Your task to perform on an android device: Search for sushi restaurants on Maps Image 0: 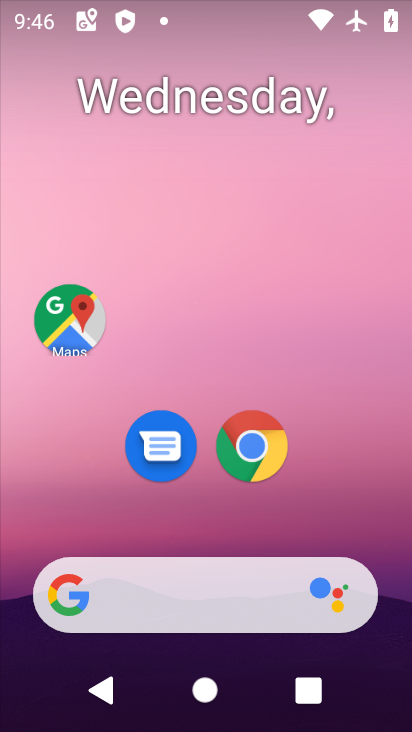
Step 0: click (76, 325)
Your task to perform on an android device: Search for sushi restaurants on Maps Image 1: 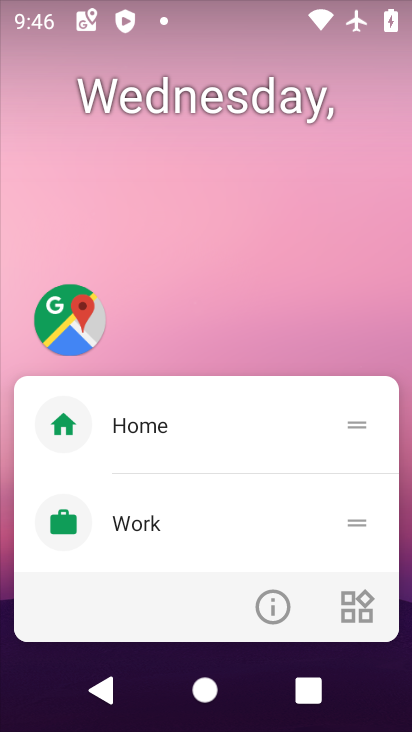
Step 1: click (68, 328)
Your task to perform on an android device: Search for sushi restaurants on Maps Image 2: 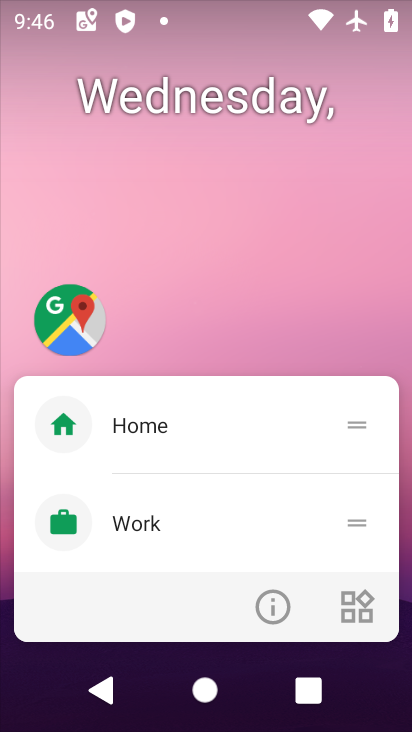
Step 2: click (64, 341)
Your task to perform on an android device: Search for sushi restaurants on Maps Image 3: 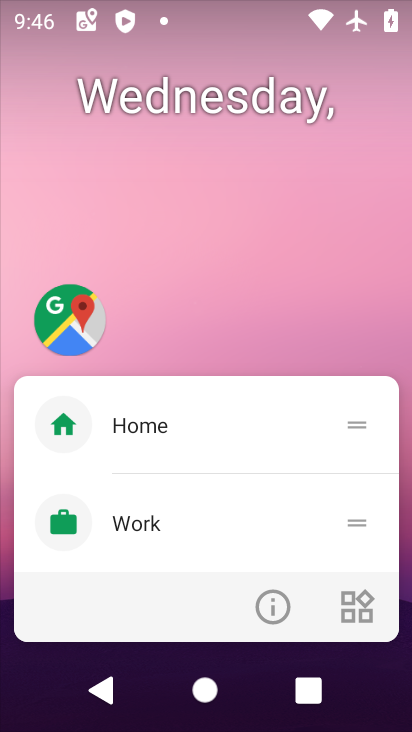
Step 3: click (72, 337)
Your task to perform on an android device: Search for sushi restaurants on Maps Image 4: 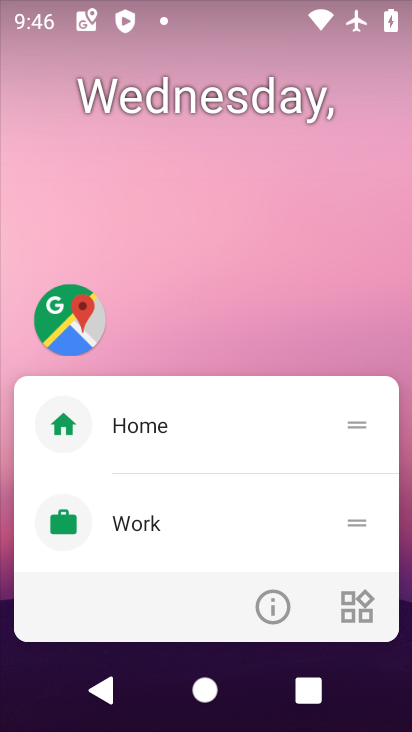
Step 4: click (67, 328)
Your task to perform on an android device: Search for sushi restaurants on Maps Image 5: 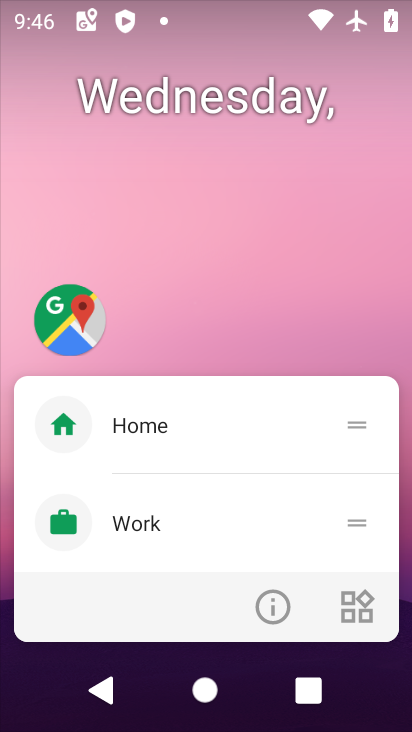
Step 5: click (72, 326)
Your task to perform on an android device: Search for sushi restaurants on Maps Image 6: 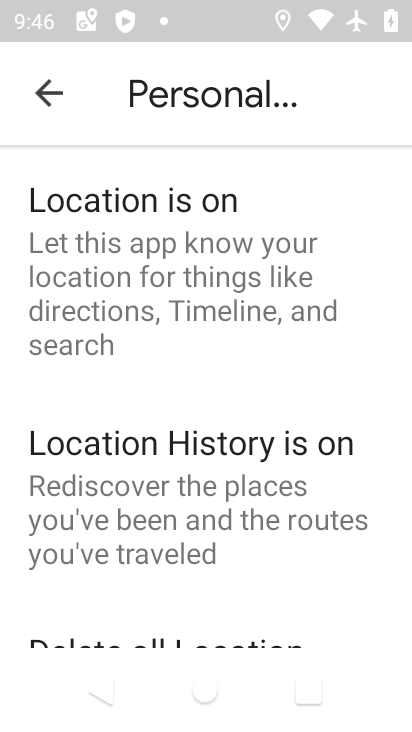
Step 6: click (49, 99)
Your task to perform on an android device: Search for sushi restaurants on Maps Image 7: 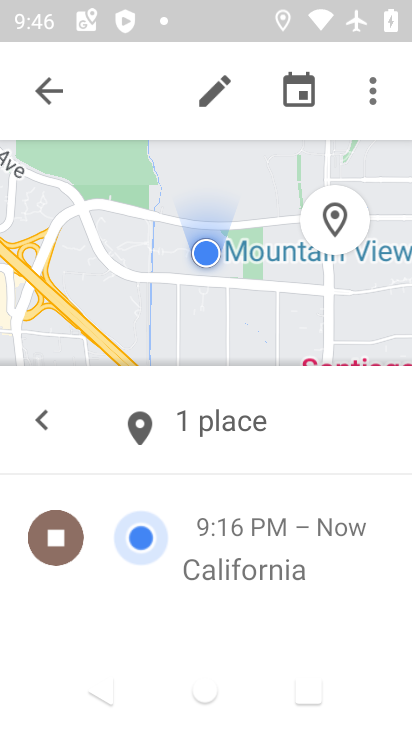
Step 7: click (49, 98)
Your task to perform on an android device: Search for sushi restaurants on Maps Image 8: 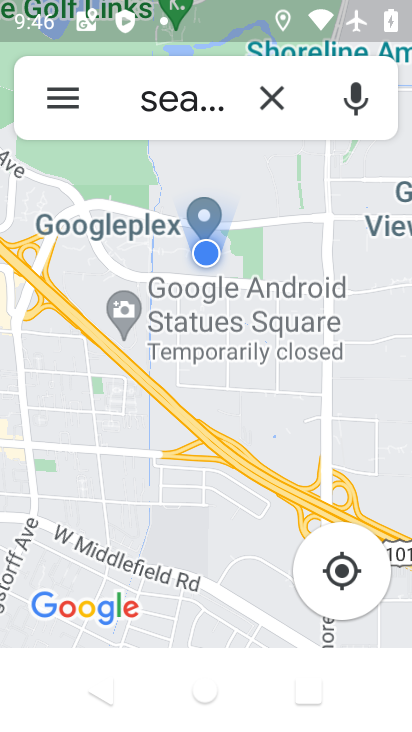
Step 8: click (279, 96)
Your task to perform on an android device: Search for sushi restaurants on Maps Image 9: 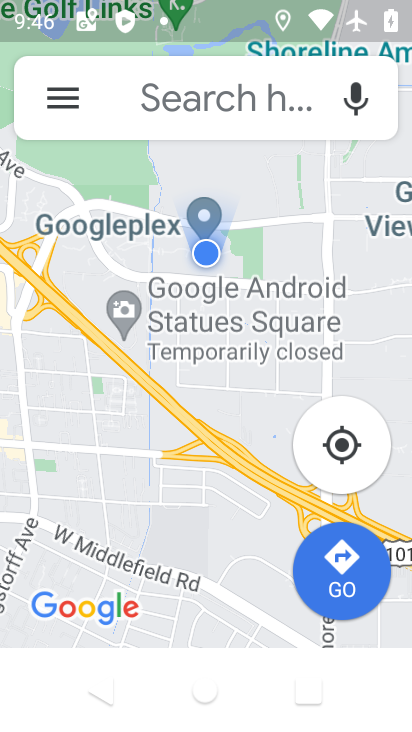
Step 9: click (199, 102)
Your task to perform on an android device: Search for sushi restaurants on Maps Image 10: 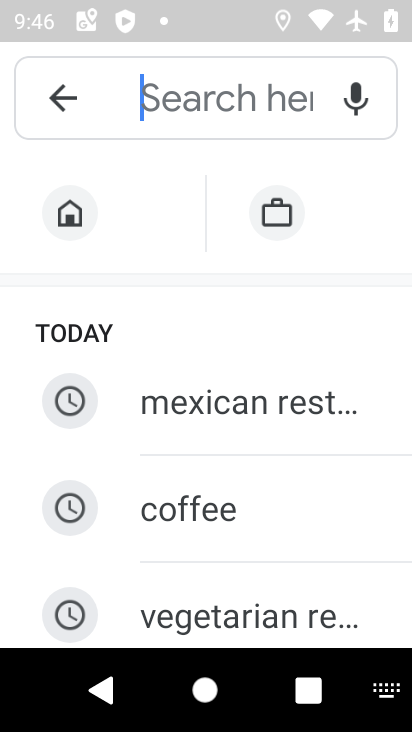
Step 10: drag from (188, 552) to (337, 194)
Your task to perform on an android device: Search for sushi restaurants on Maps Image 11: 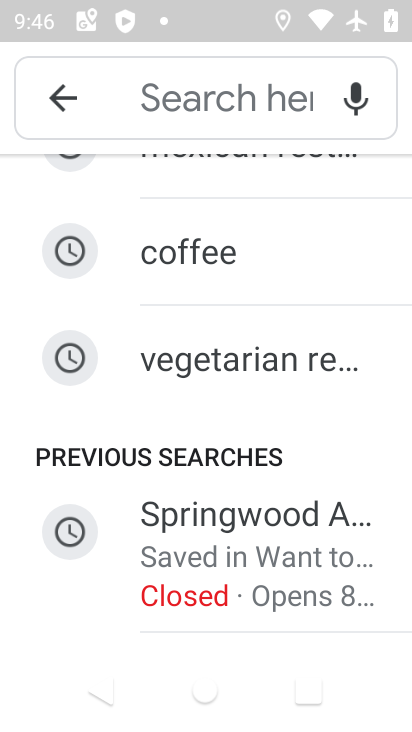
Step 11: drag from (301, 328) to (273, 648)
Your task to perform on an android device: Search for sushi restaurants on Maps Image 12: 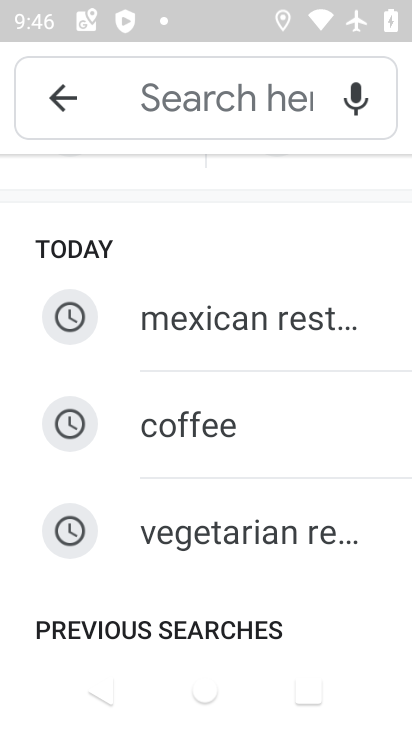
Step 12: click (174, 90)
Your task to perform on an android device: Search for sushi restaurants on Maps Image 13: 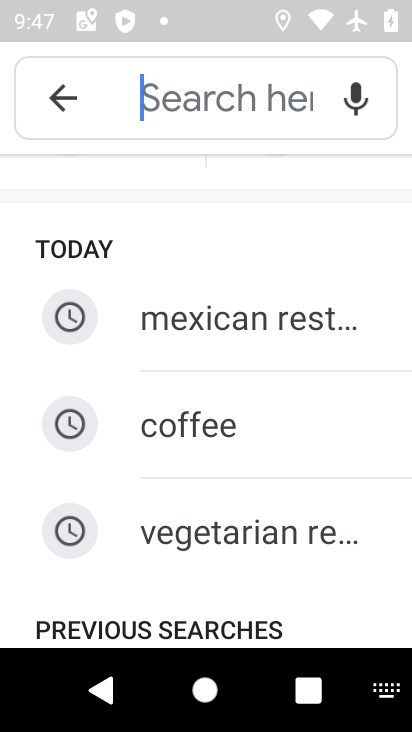
Step 13: type "sushi"
Your task to perform on an android device: Search for sushi restaurants on Maps Image 14: 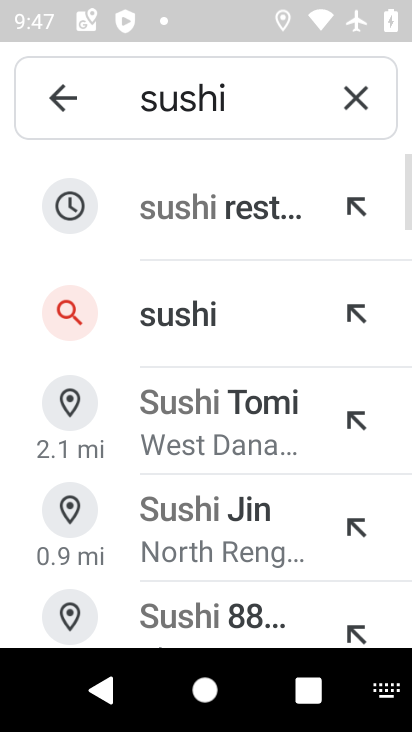
Step 14: click (212, 213)
Your task to perform on an android device: Search for sushi restaurants on Maps Image 15: 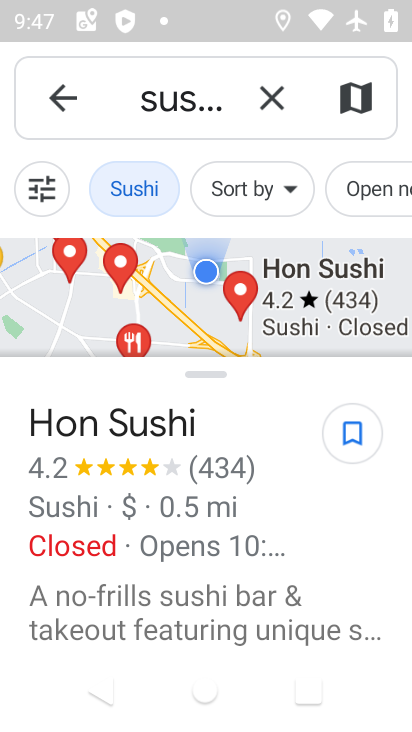
Step 15: task complete